Your task to perform on an android device: turn on location history Image 0: 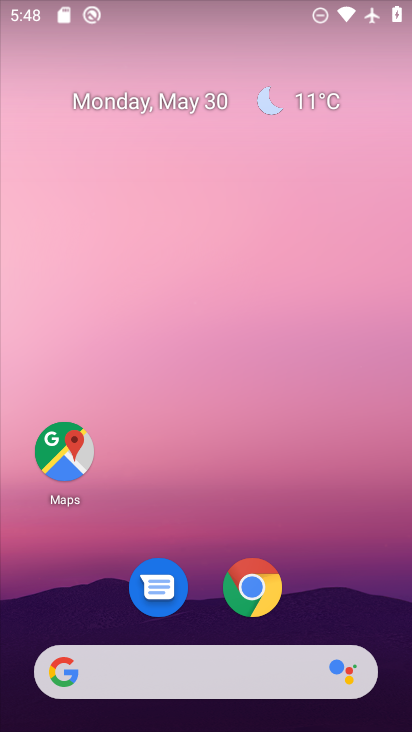
Step 0: drag from (283, 427) to (202, 1)
Your task to perform on an android device: turn on location history Image 1: 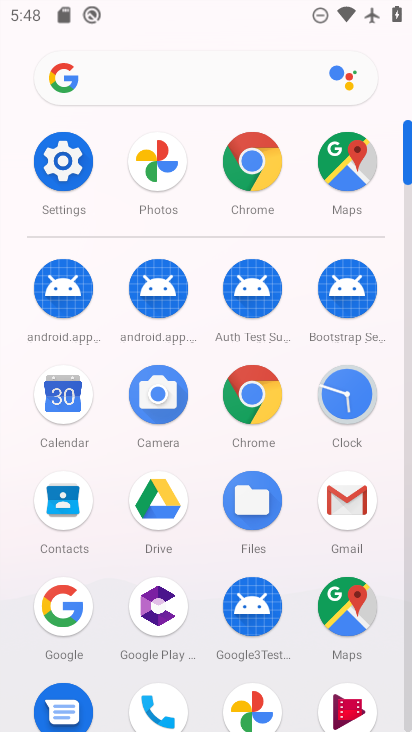
Step 1: drag from (21, 485) to (31, 164)
Your task to perform on an android device: turn on location history Image 2: 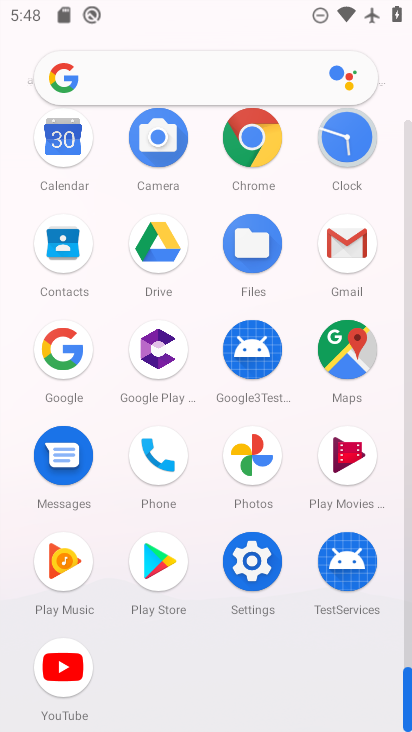
Step 2: click (248, 559)
Your task to perform on an android device: turn on location history Image 3: 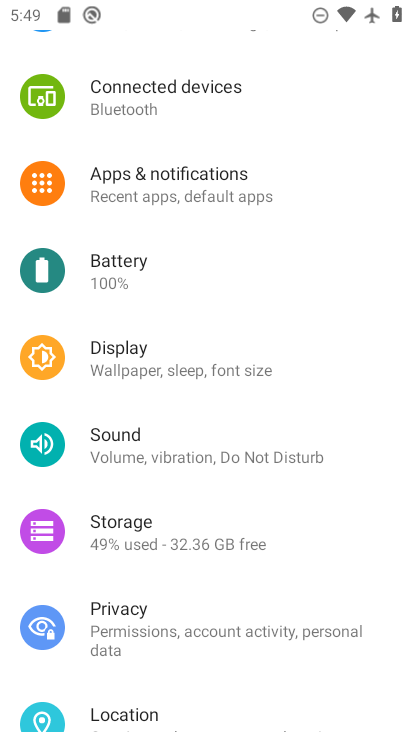
Step 3: drag from (289, 504) to (279, 101)
Your task to perform on an android device: turn on location history Image 4: 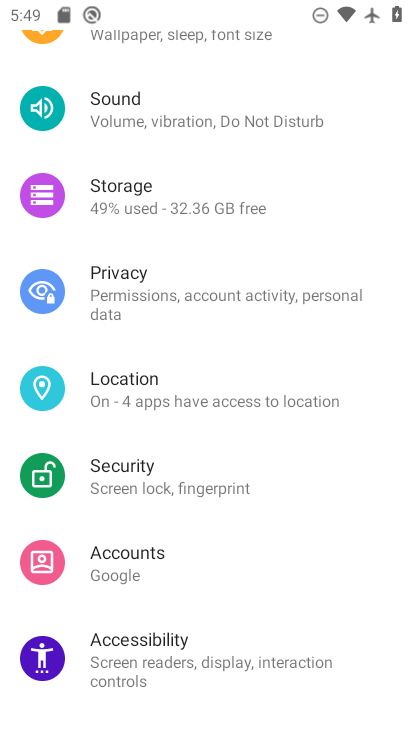
Step 4: drag from (301, 579) to (300, 142)
Your task to perform on an android device: turn on location history Image 5: 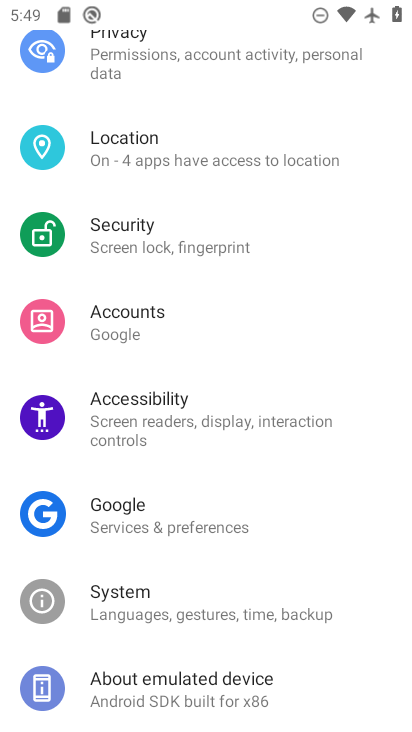
Step 5: drag from (260, 616) to (291, 182)
Your task to perform on an android device: turn on location history Image 6: 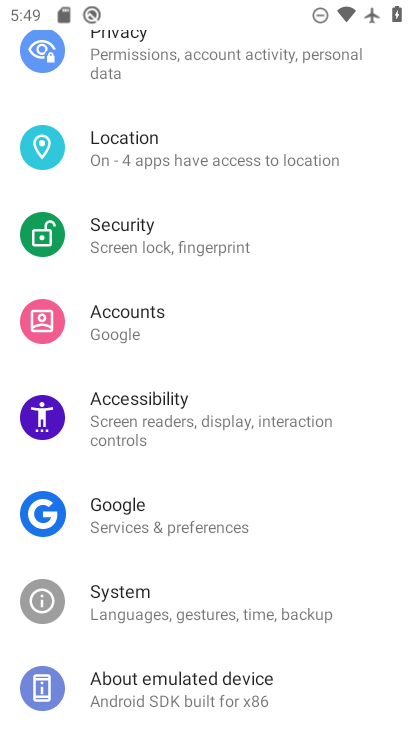
Step 6: click (210, 160)
Your task to perform on an android device: turn on location history Image 7: 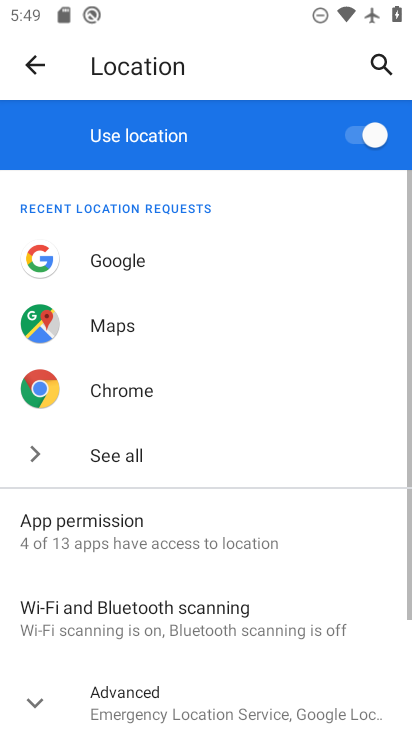
Step 7: drag from (239, 429) to (252, 93)
Your task to perform on an android device: turn on location history Image 8: 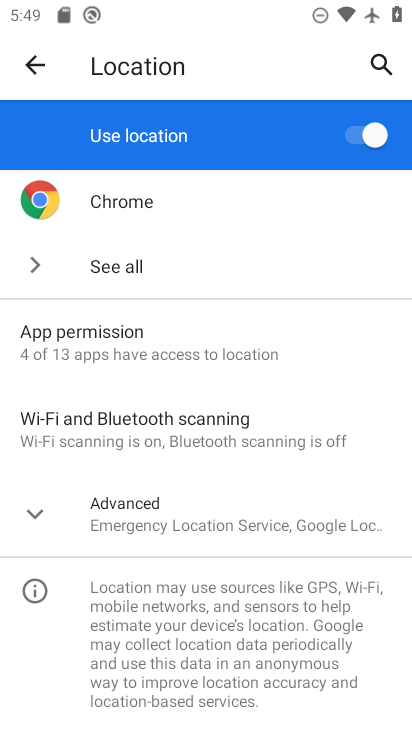
Step 8: click (83, 497)
Your task to perform on an android device: turn on location history Image 9: 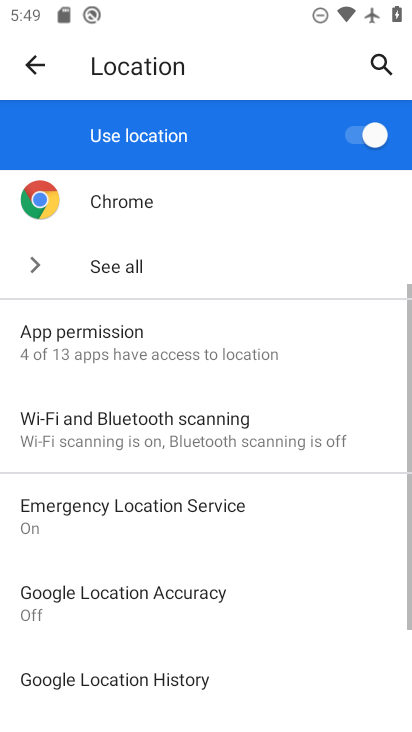
Step 9: drag from (321, 596) to (292, 230)
Your task to perform on an android device: turn on location history Image 10: 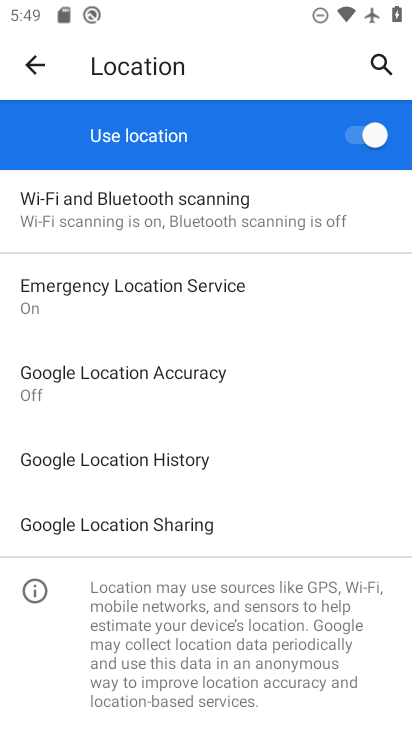
Step 10: click (159, 453)
Your task to perform on an android device: turn on location history Image 11: 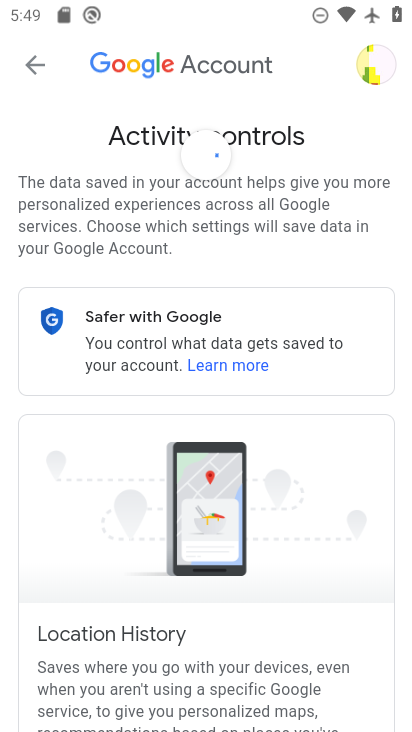
Step 11: task complete